Your task to perform on an android device: Go to Yahoo.com Image 0: 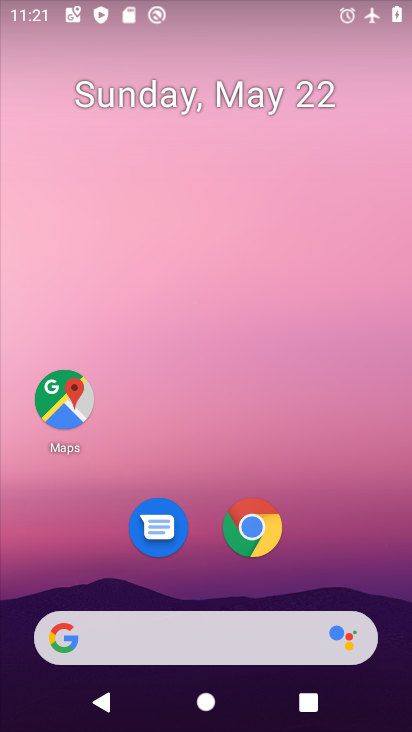
Step 0: click (262, 545)
Your task to perform on an android device: Go to Yahoo.com Image 1: 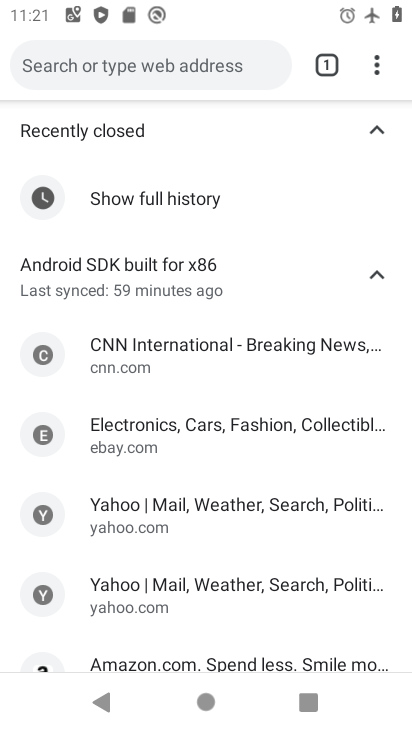
Step 1: click (180, 580)
Your task to perform on an android device: Go to Yahoo.com Image 2: 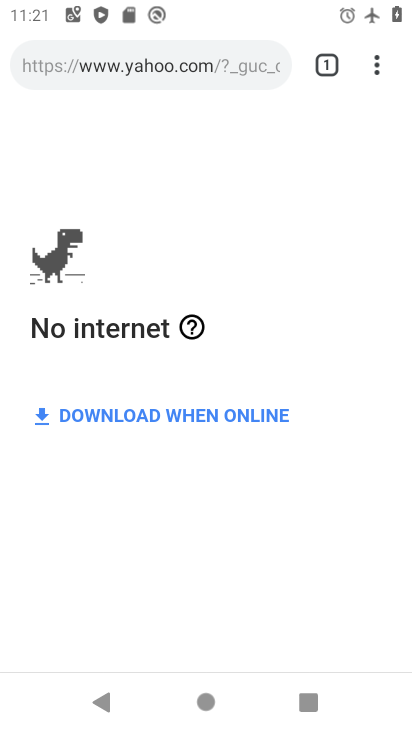
Step 2: task complete